Your task to perform on an android device: star an email in the gmail app Image 0: 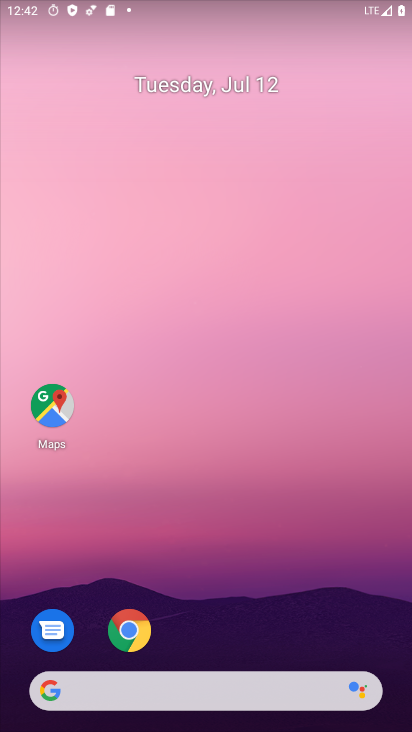
Step 0: drag from (252, 582) to (222, 39)
Your task to perform on an android device: star an email in the gmail app Image 1: 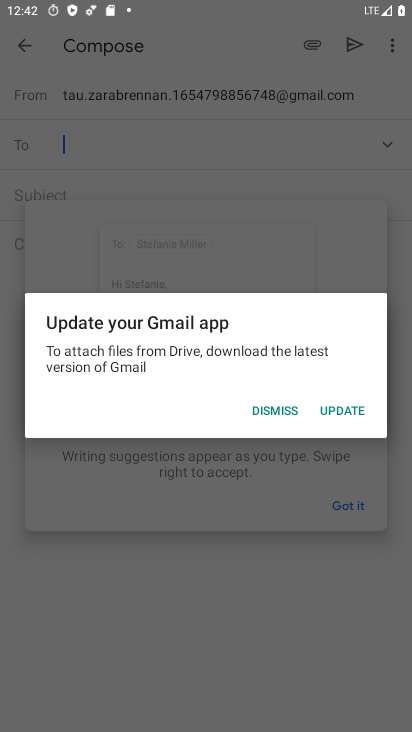
Step 1: press home button
Your task to perform on an android device: star an email in the gmail app Image 2: 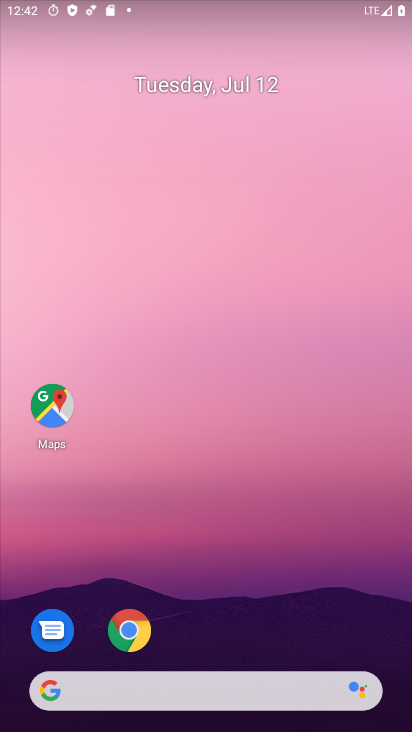
Step 2: drag from (366, 616) to (305, 177)
Your task to perform on an android device: star an email in the gmail app Image 3: 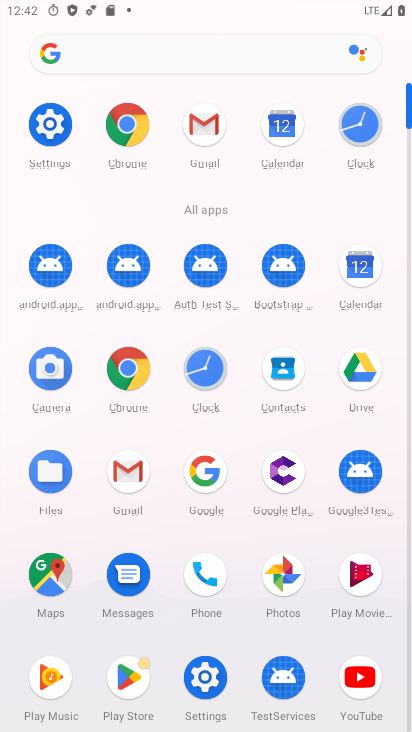
Step 3: click (132, 474)
Your task to perform on an android device: star an email in the gmail app Image 4: 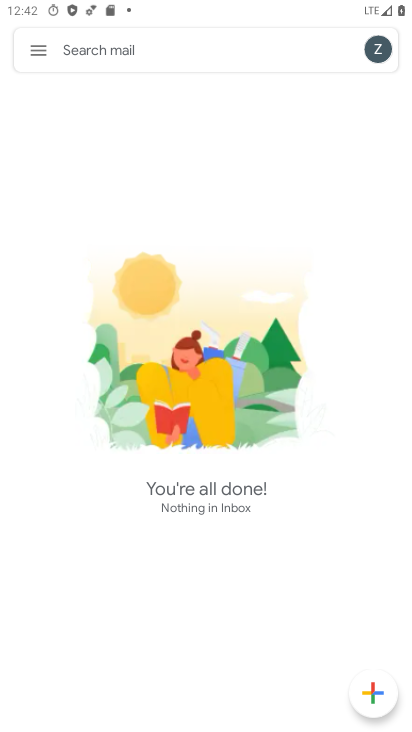
Step 4: click (38, 59)
Your task to perform on an android device: star an email in the gmail app Image 5: 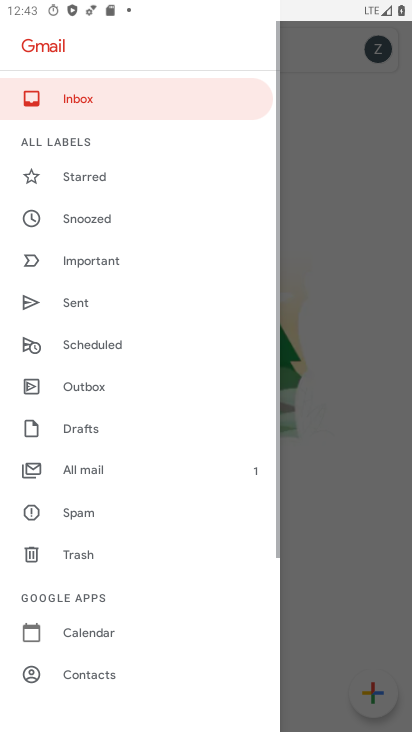
Step 5: click (94, 465)
Your task to perform on an android device: star an email in the gmail app Image 6: 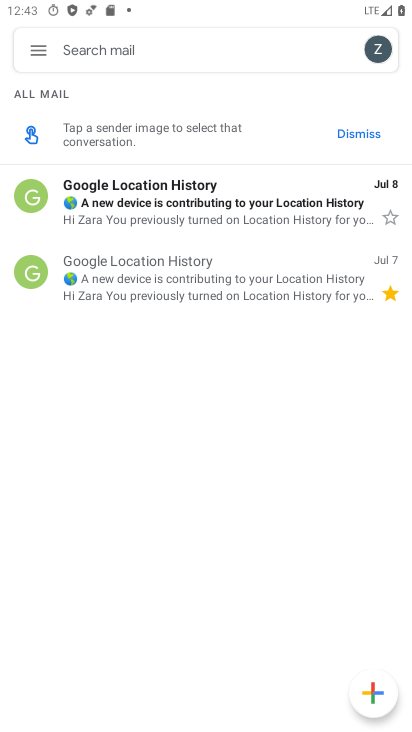
Step 6: click (387, 218)
Your task to perform on an android device: star an email in the gmail app Image 7: 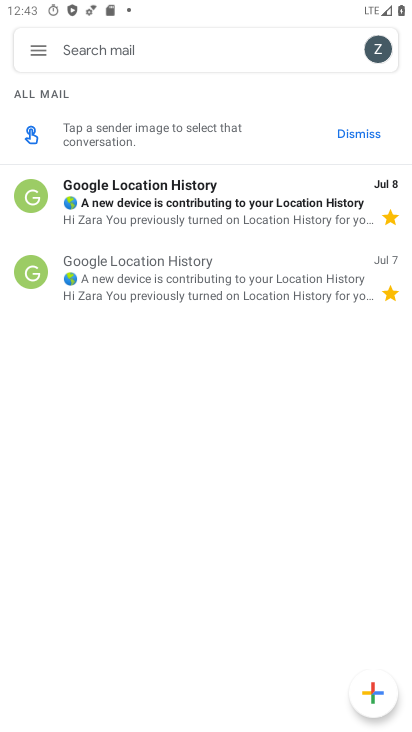
Step 7: task complete